Your task to perform on an android device: Open settings on Google Maps Image 0: 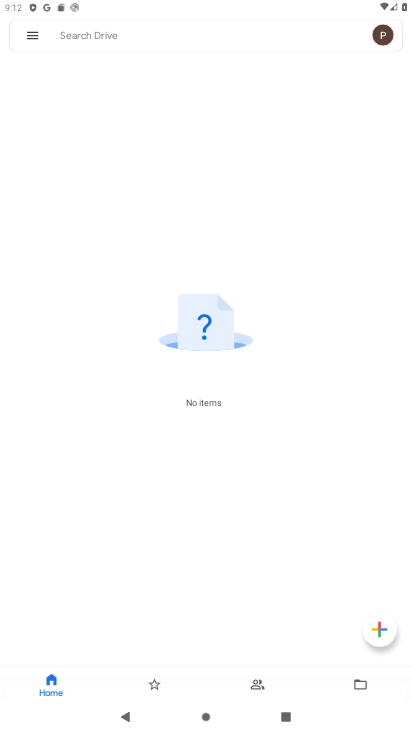
Step 0: press home button
Your task to perform on an android device: Open settings on Google Maps Image 1: 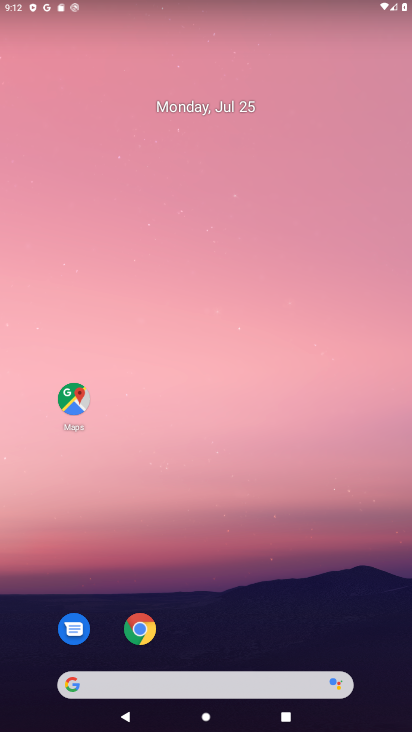
Step 1: click (68, 407)
Your task to perform on an android device: Open settings on Google Maps Image 2: 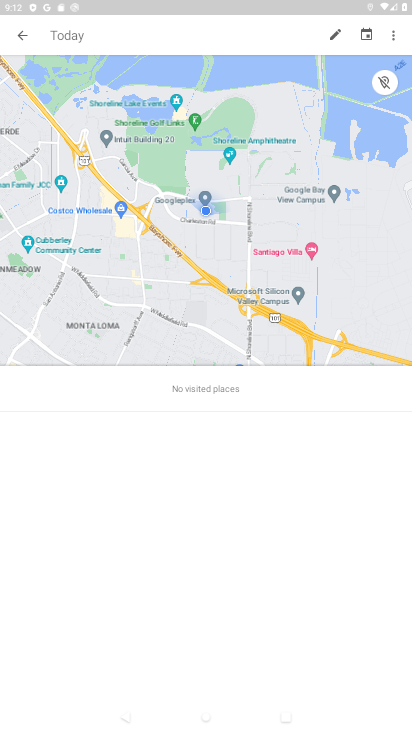
Step 2: click (19, 32)
Your task to perform on an android device: Open settings on Google Maps Image 3: 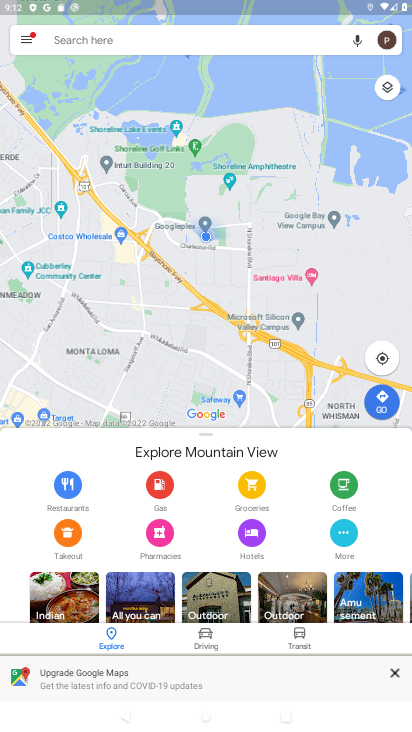
Step 3: click (26, 33)
Your task to perform on an android device: Open settings on Google Maps Image 4: 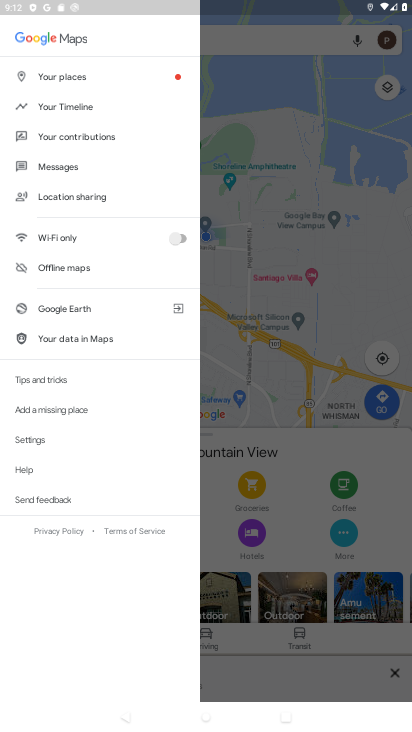
Step 4: click (45, 449)
Your task to perform on an android device: Open settings on Google Maps Image 5: 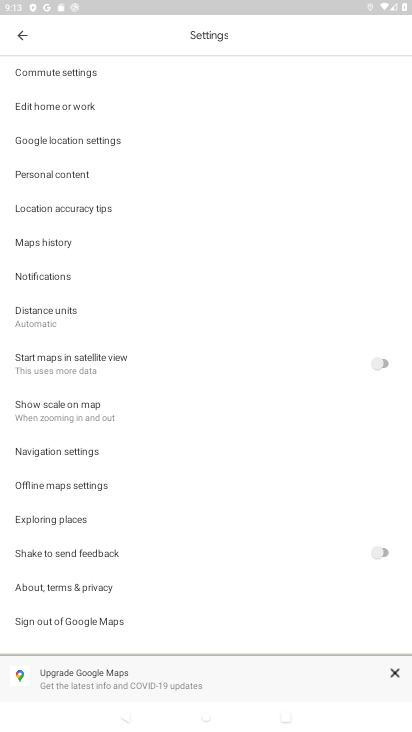
Step 5: task complete